Your task to perform on an android device: toggle notifications settings in the gmail app Image 0: 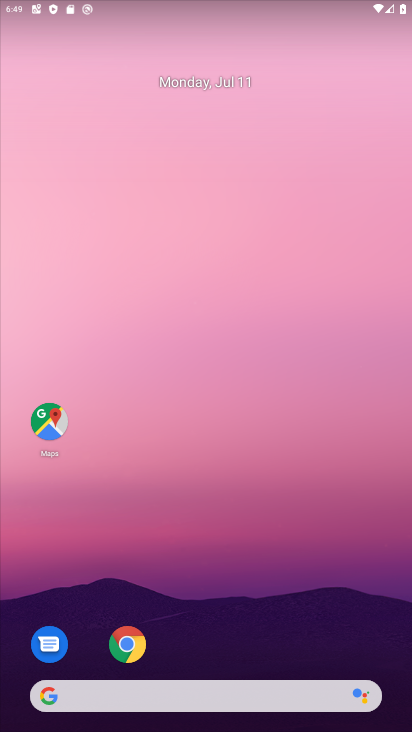
Step 0: drag from (187, 691) to (198, 75)
Your task to perform on an android device: toggle notifications settings in the gmail app Image 1: 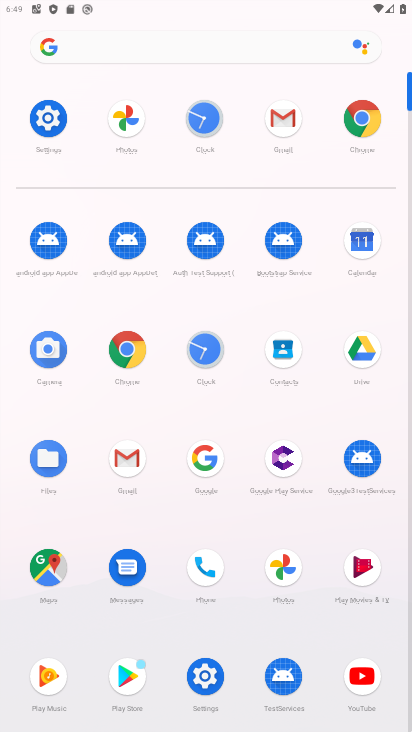
Step 1: click (131, 452)
Your task to perform on an android device: toggle notifications settings in the gmail app Image 2: 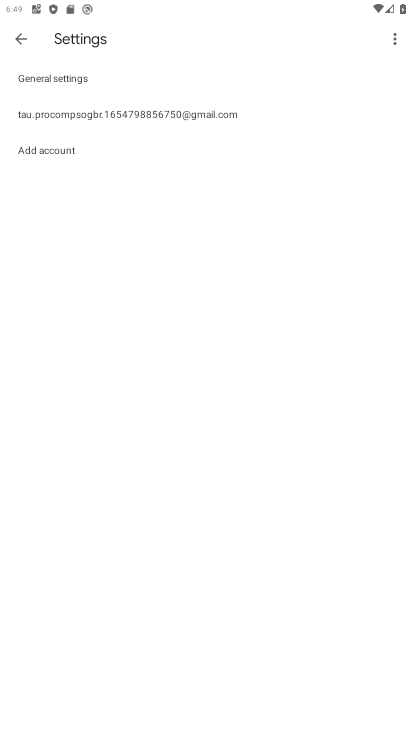
Step 2: click (139, 113)
Your task to perform on an android device: toggle notifications settings in the gmail app Image 3: 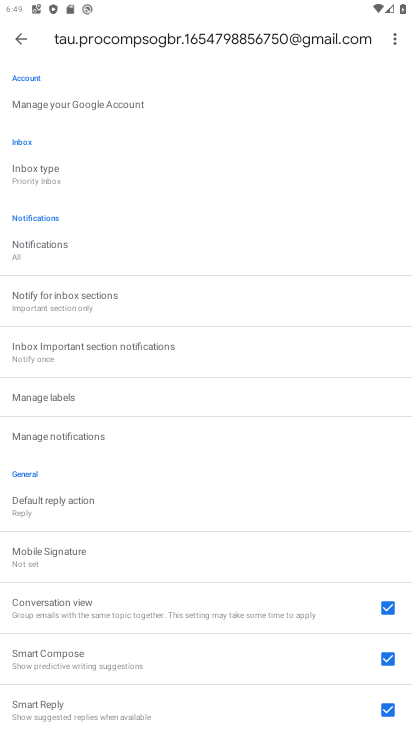
Step 3: click (73, 432)
Your task to perform on an android device: toggle notifications settings in the gmail app Image 4: 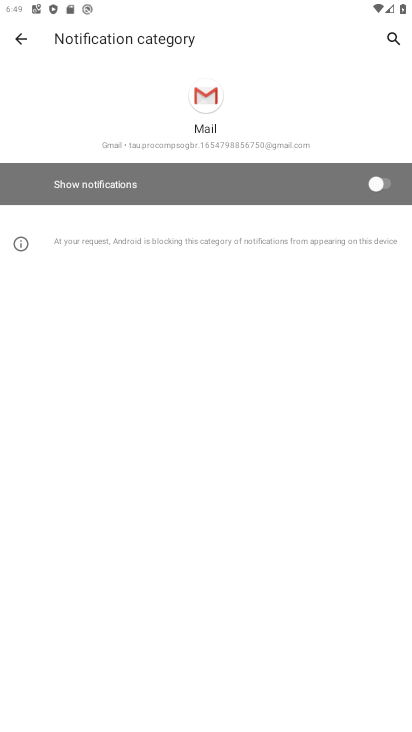
Step 4: click (381, 176)
Your task to perform on an android device: toggle notifications settings in the gmail app Image 5: 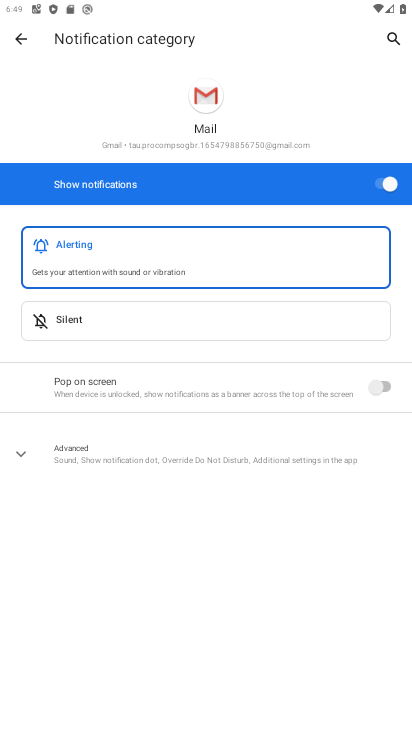
Step 5: task complete